Your task to perform on an android device: Go to Maps Image 0: 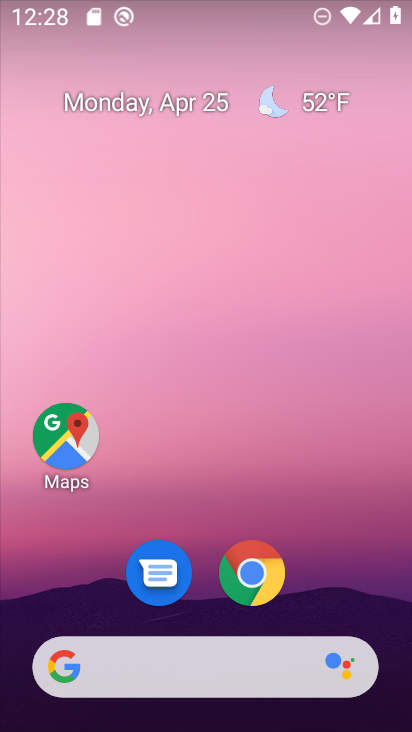
Step 0: drag from (211, 711) to (211, 161)
Your task to perform on an android device: Go to Maps Image 1: 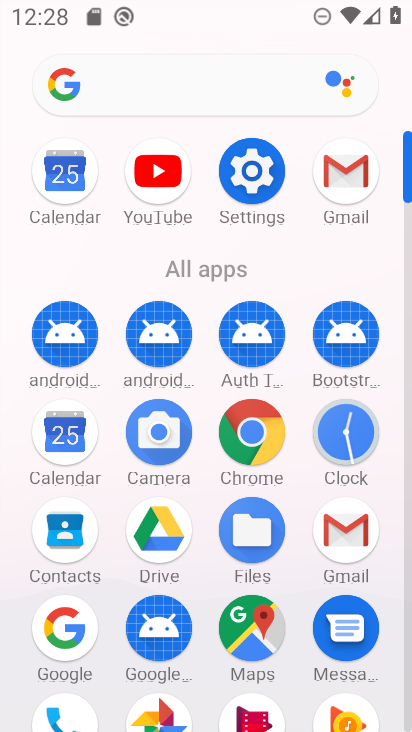
Step 1: click (254, 627)
Your task to perform on an android device: Go to Maps Image 2: 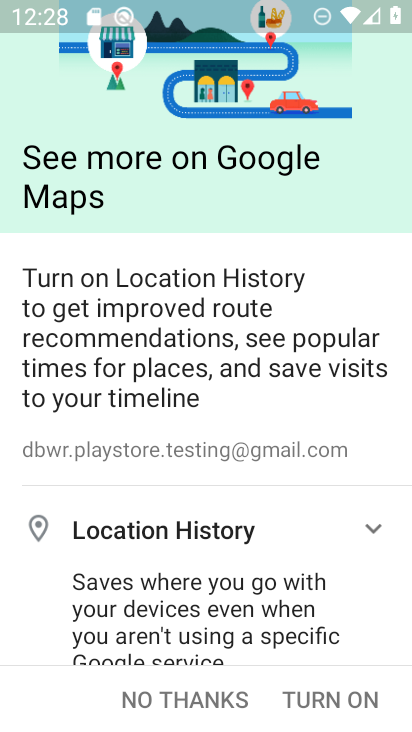
Step 2: click (220, 691)
Your task to perform on an android device: Go to Maps Image 3: 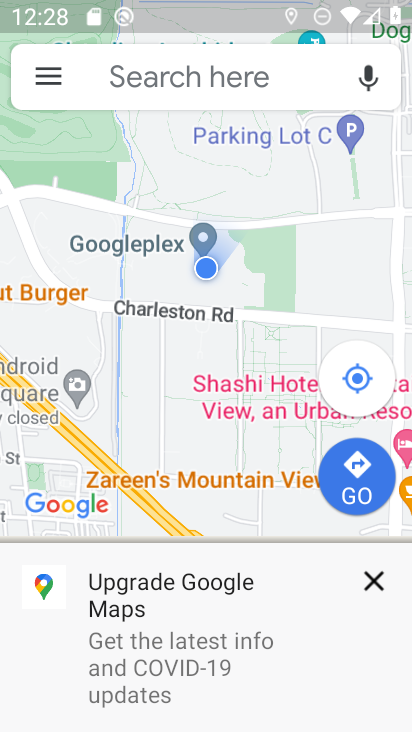
Step 3: task complete